Your task to perform on an android device: Show me recent news Image 0: 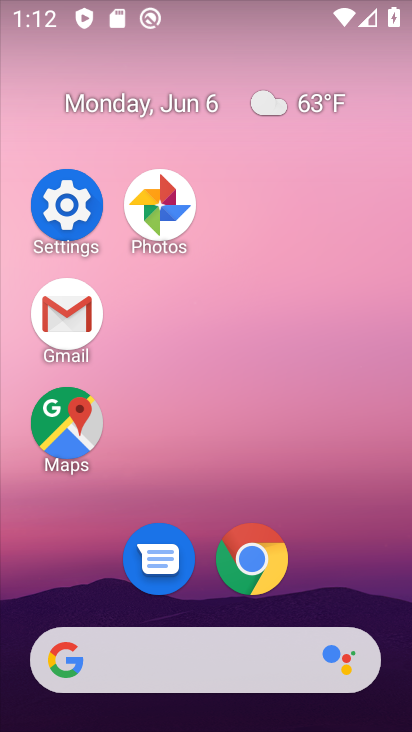
Step 0: drag from (333, 569) to (316, 161)
Your task to perform on an android device: Show me recent news Image 1: 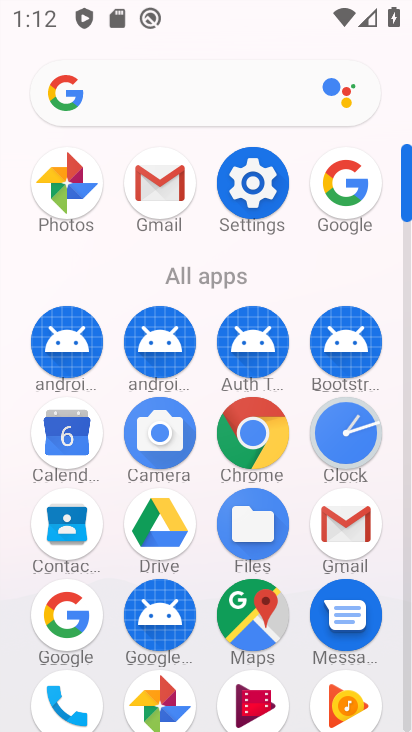
Step 1: drag from (340, 183) to (164, 303)
Your task to perform on an android device: Show me recent news Image 2: 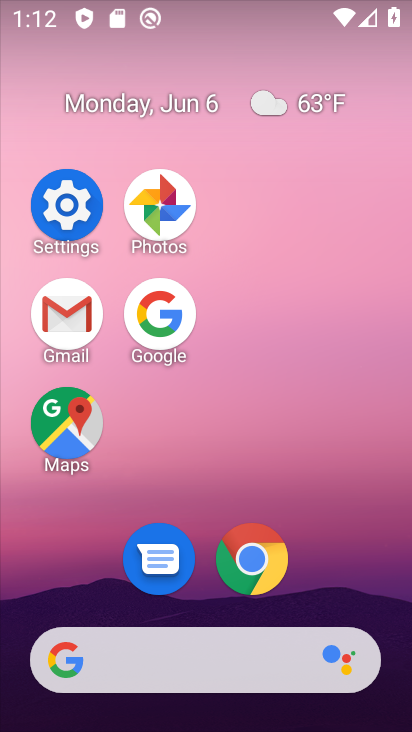
Step 2: click (171, 316)
Your task to perform on an android device: Show me recent news Image 3: 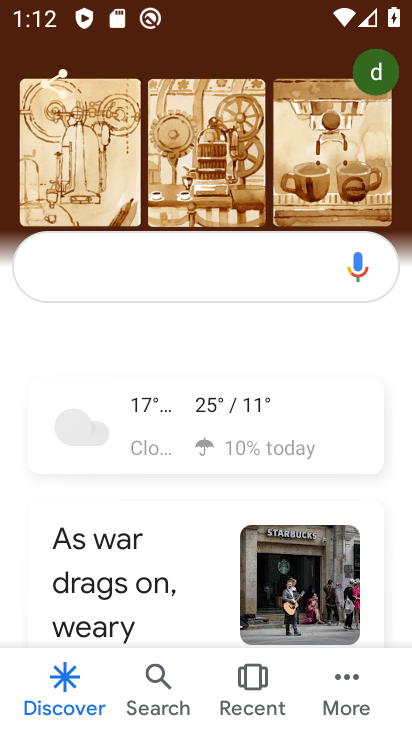
Step 3: click (194, 262)
Your task to perform on an android device: Show me recent news Image 4: 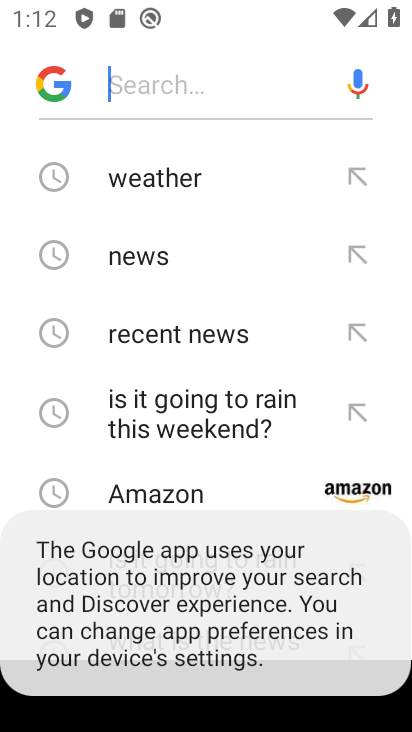
Step 4: click (202, 335)
Your task to perform on an android device: Show me recent news Image 5: 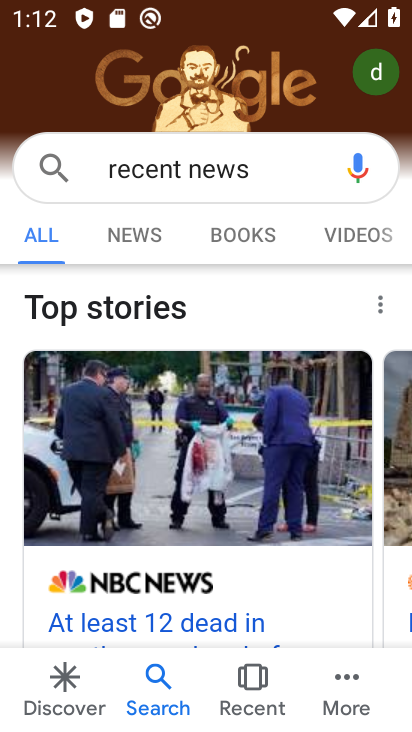
Step 5: task complete